Your task to perform on an android device: turn on translation in the chrome app Image 0: 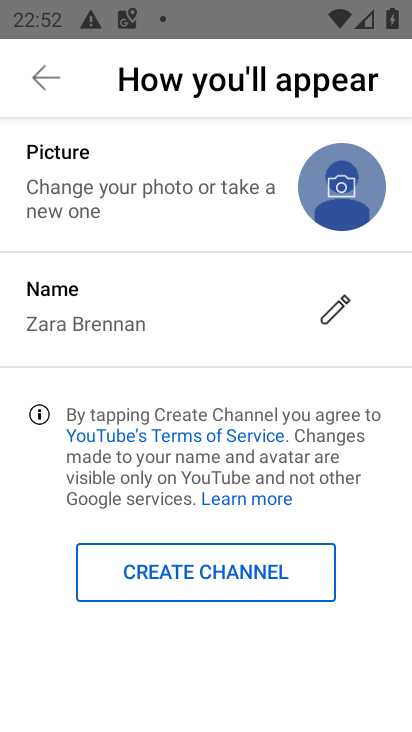
Step 0: press back button
Your task to perform on an android device: turn on translation in the chrome app Image 1: 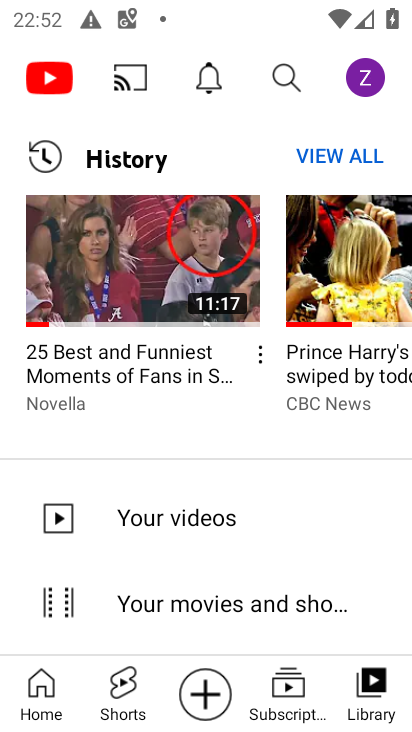
Step 1: press back button
Your task to perform on an android device: turn on translation in the chrome app Image 2: 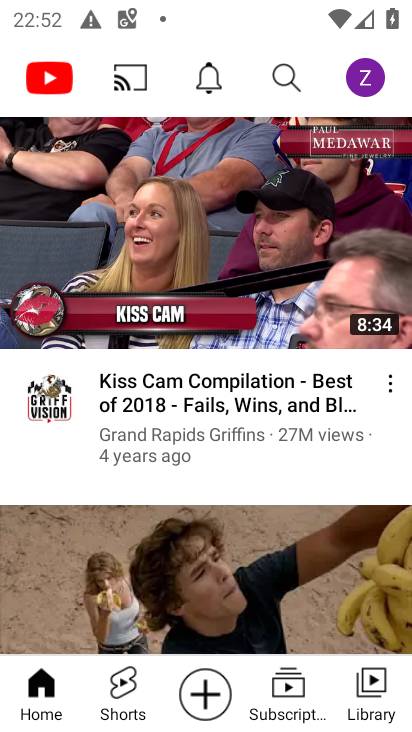
Step 2: press home button
Your task to perform on an android device: turn on translation in the chrome app Image 3: 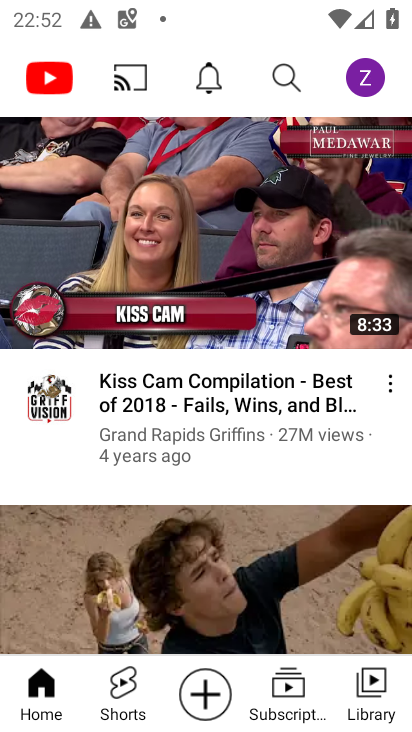
Step 3: press home button
Your task to perform on an android device: turn on translation in the chrome app Image 4: 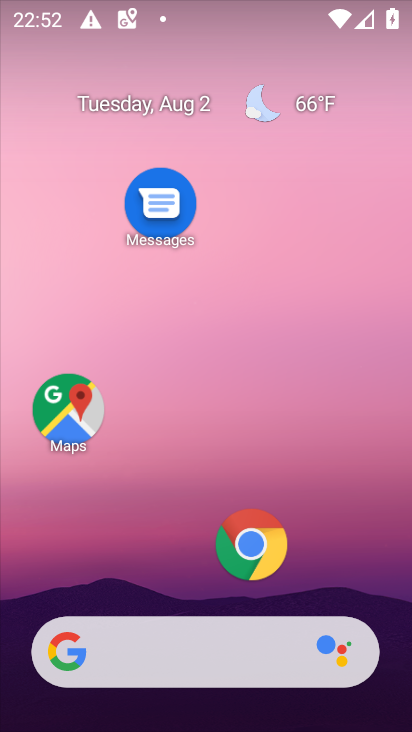
Step 4: click (250, 518)
Your task to perform on an android device: turn on translation in the chrome app Image 5: 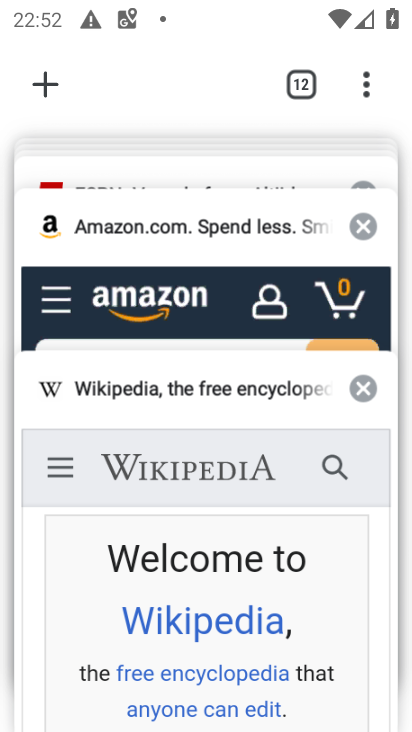
Step 5: click (368, 88)
Your task to perform on an android device: turn on translation in the chrome app Image 6: 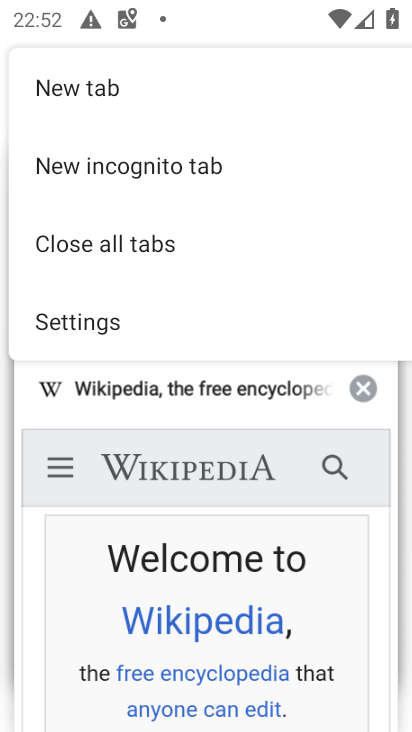
Step 6: click (103, 314)
Your task to perform on an android device: turn on translation in the chrome app Image 7: 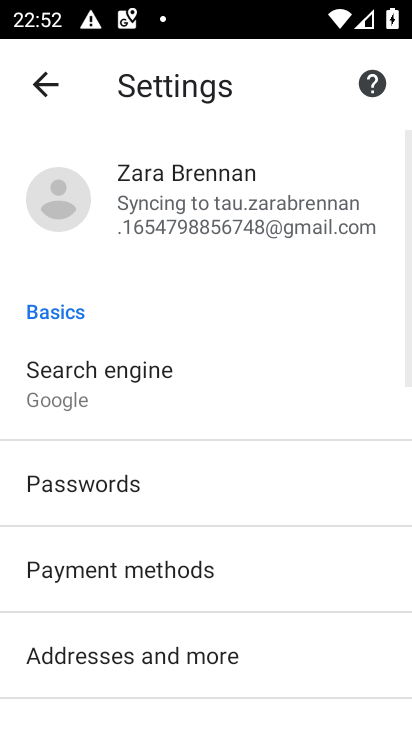
Step 7: drag from (171, 592) to (185, 195)
Your task to perform on an android device: turn on translation in the chrome app Image 8: 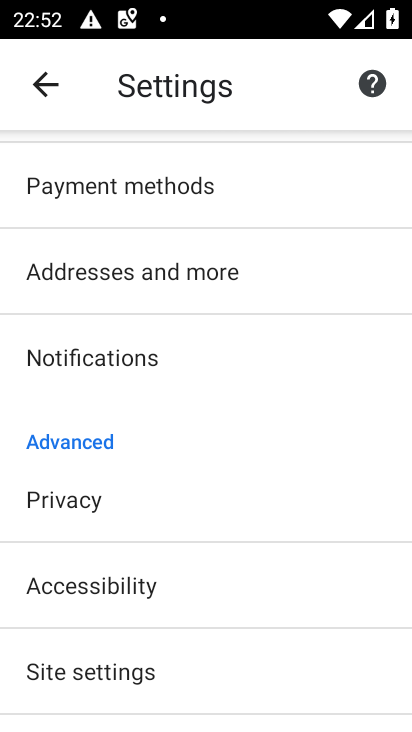
Step 8: drag from (189, 531) to (198, 232)
Your task to perform on an android device: turn on translation in the chrome app Image 9: 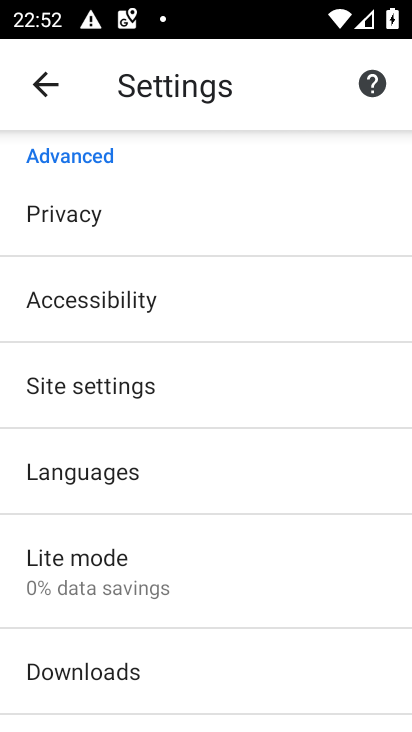
Step 9: click (163, 465)
Your task to perform on an android device: turn on translation in the chrome app Image 10: 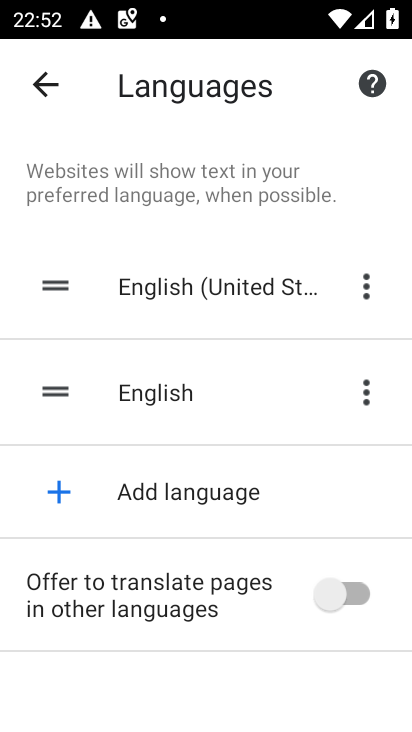
Step 10: click (355, 589)
Your task to perform on an android device: turn on translation in the chrome app Image 11: 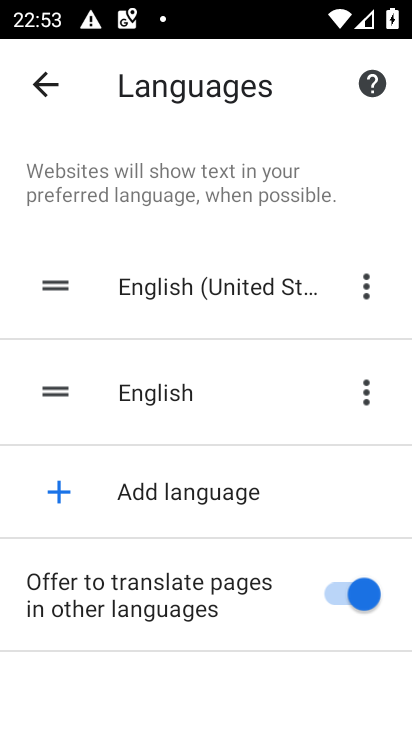
Step 11: task complete